Your task to perform on an android device: Open Wikipedia Image 0: 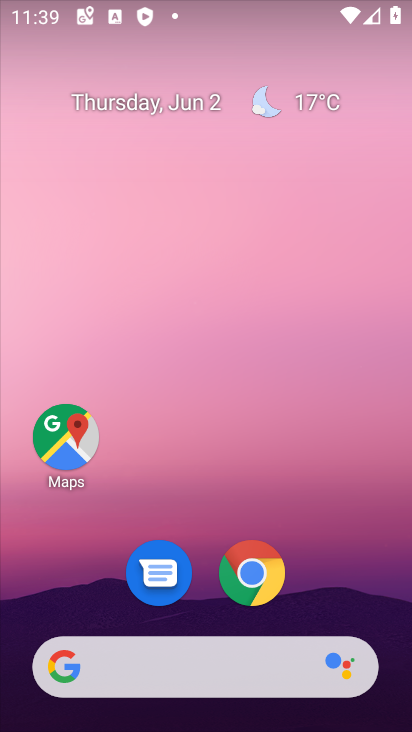
Step 0: drag from (331, 543) to (280, 17)
Your task to perform on an android device: Open Wikipedia Image 1: 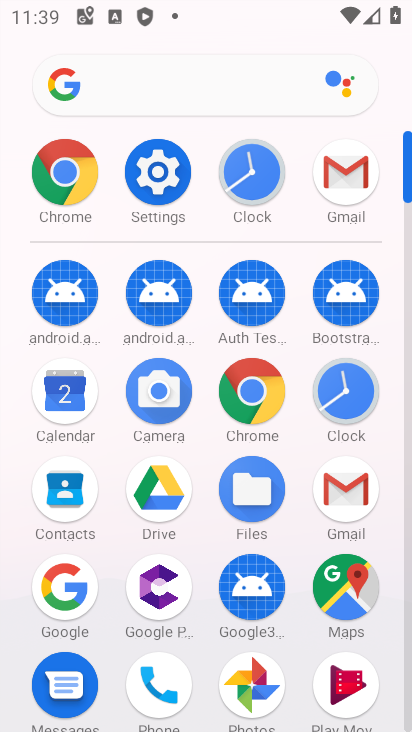
Step 1: click (260, 401)
Your task to perform on an android device: Open Wikipedia Image 2: 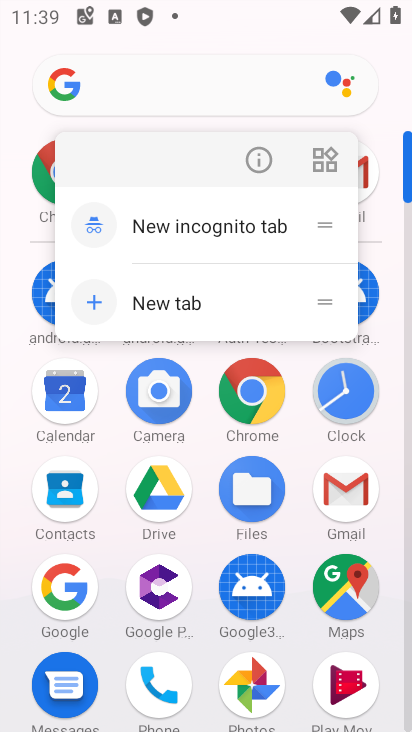
Step 2: click (260, 401)
Your task to perform on an android device: Open Wikipedia Image 3: 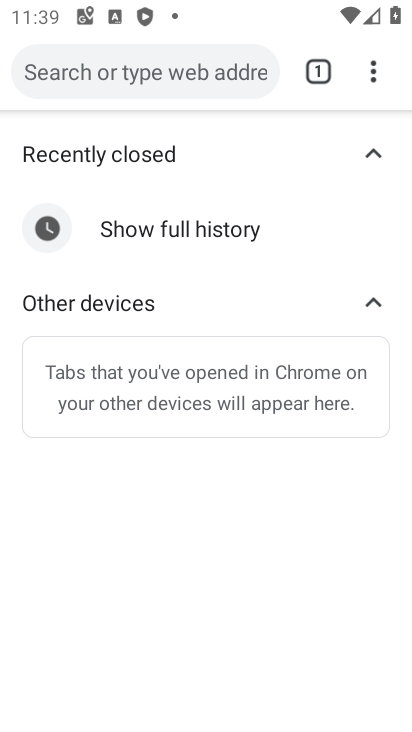
Step 3: click (185, 94)
Your task to perform on an android device: Open Wikipedia Image 4: 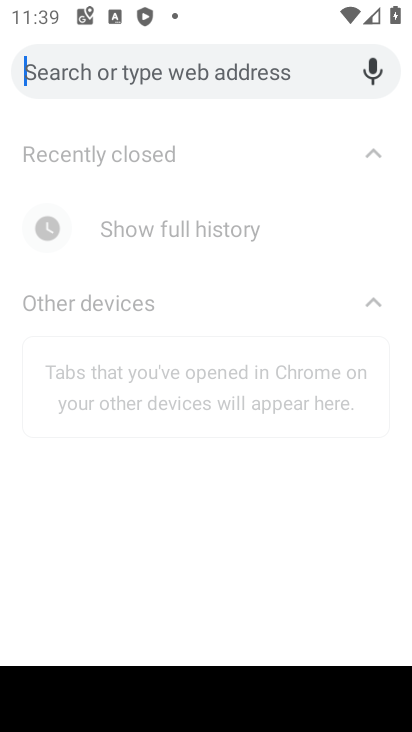
Step 4: type "wikipedia"
Your task to perform on an android device: Open Wikipedia Image 5: 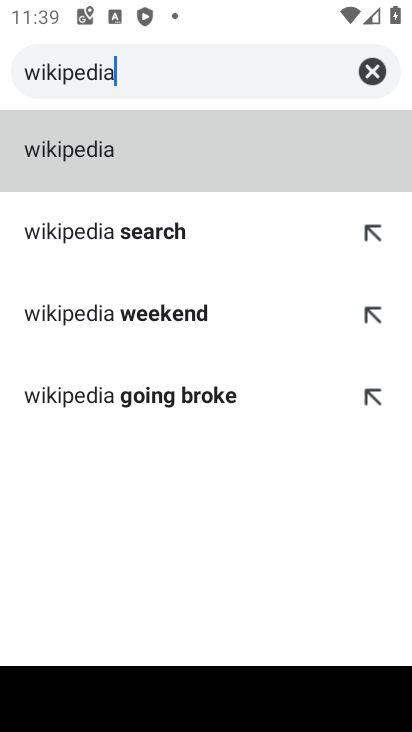
Step 5: click (144, 175)
Your task to perform on an android device: Open Wikipedia Image 6: 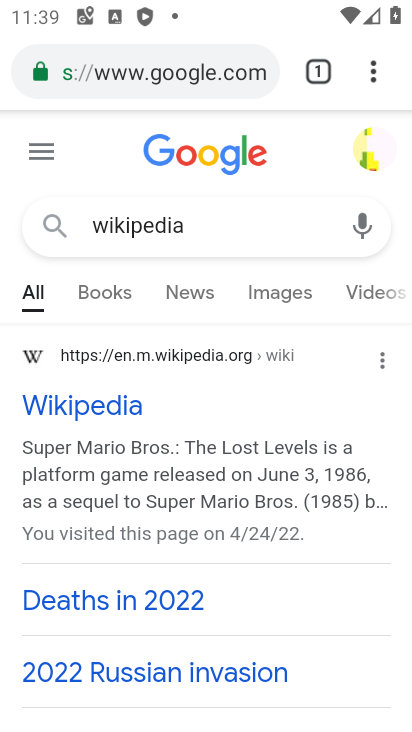
Step 6: click (56, 410)
Your task to perform on an android device: Open Wikipedia Image 7: 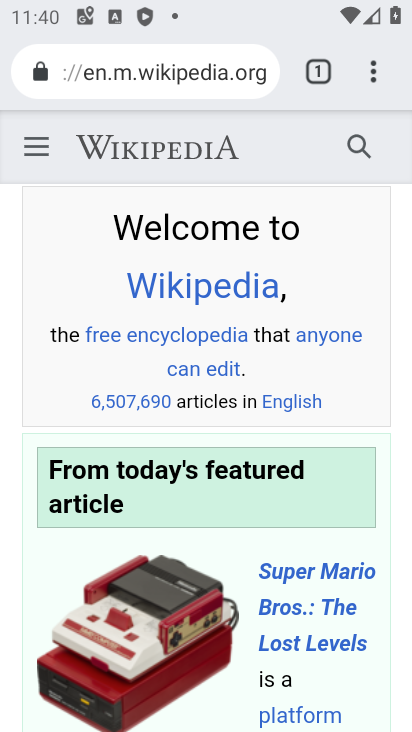
Step 7: task complete